Your task to perform on an android device: Do I have any events this weekend? Image 0: 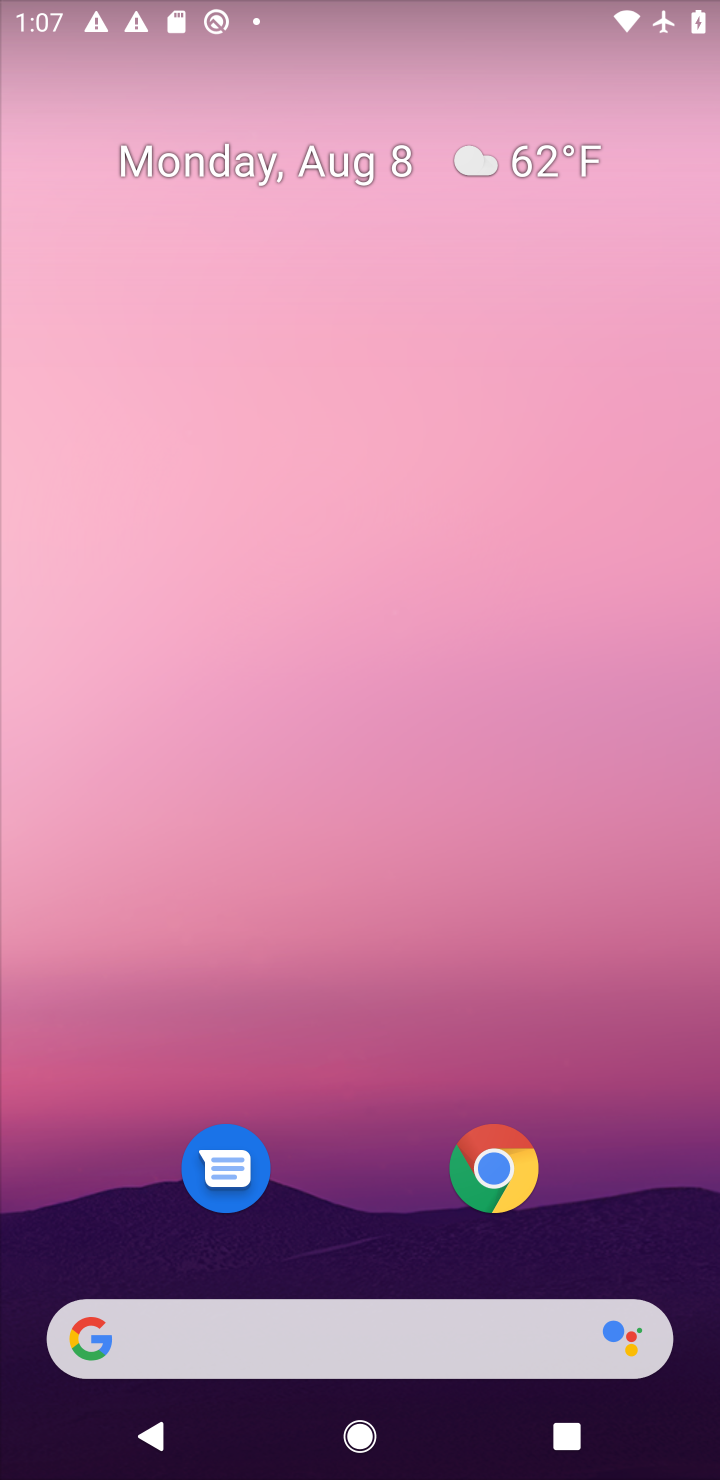
Step 0: drag from (369, 1260) to (289, 0)
Your task to perform on an android device: Do I have any events this weekend? Image 1: 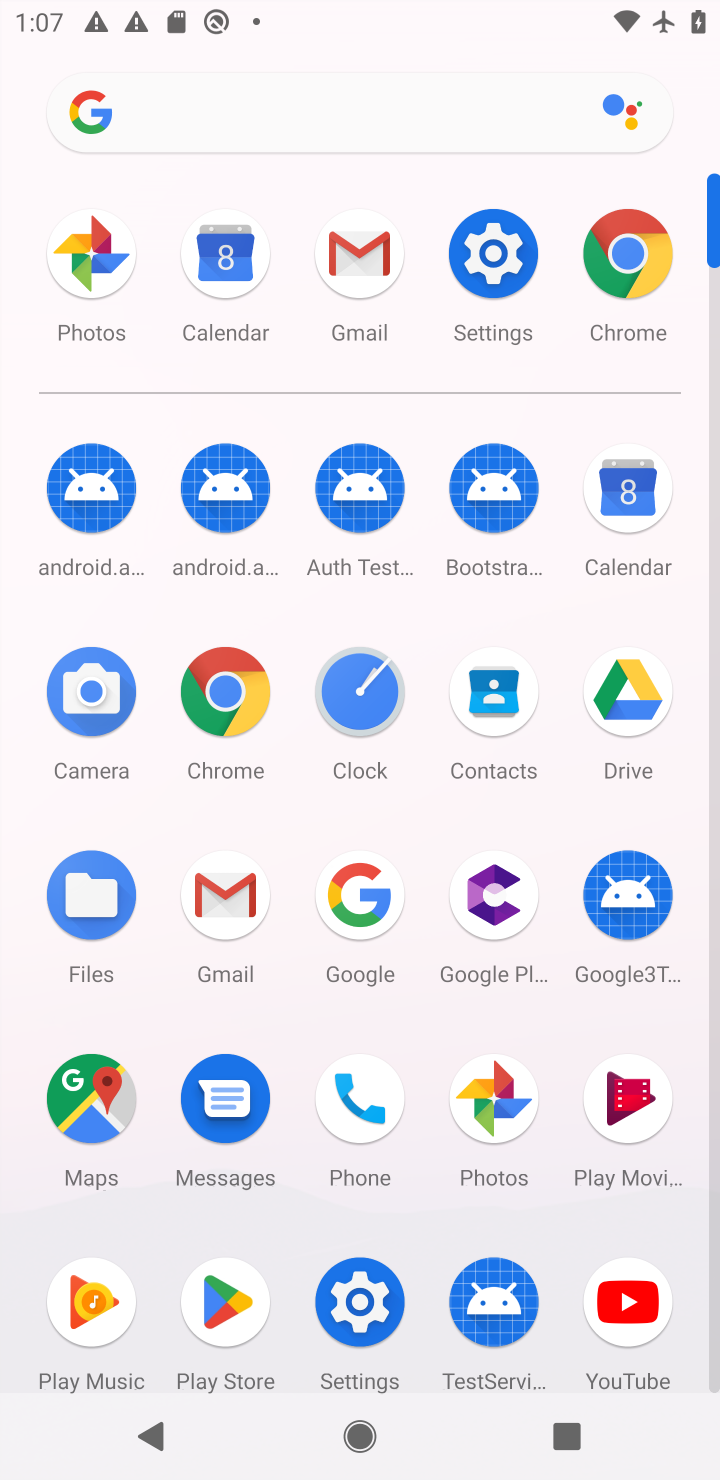
Step 1: click (644, 496)
Your task to perform on an android device: Do I have any events this weekend? Image 2: 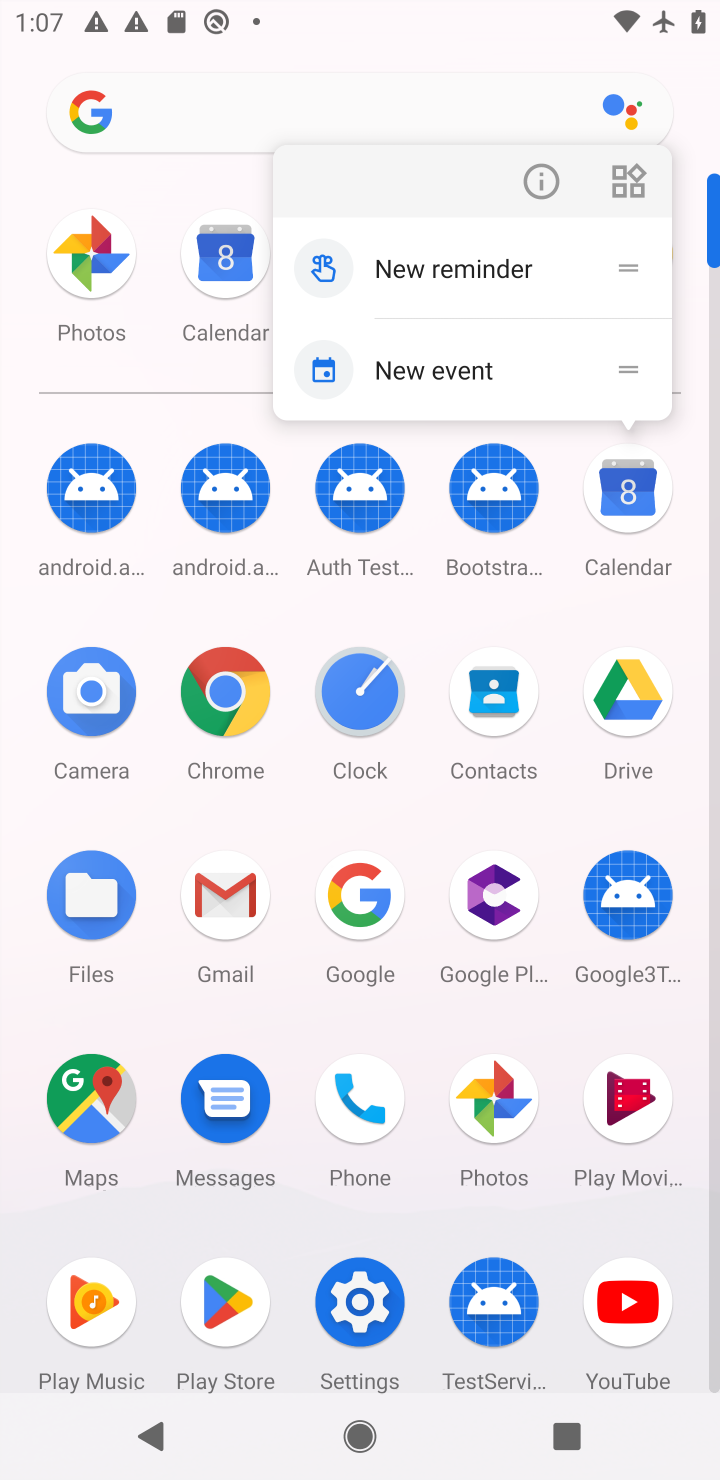
Step 2: click (668, 538)
Your task to perform on an android device: Do I have any events this weekend? Image 3: 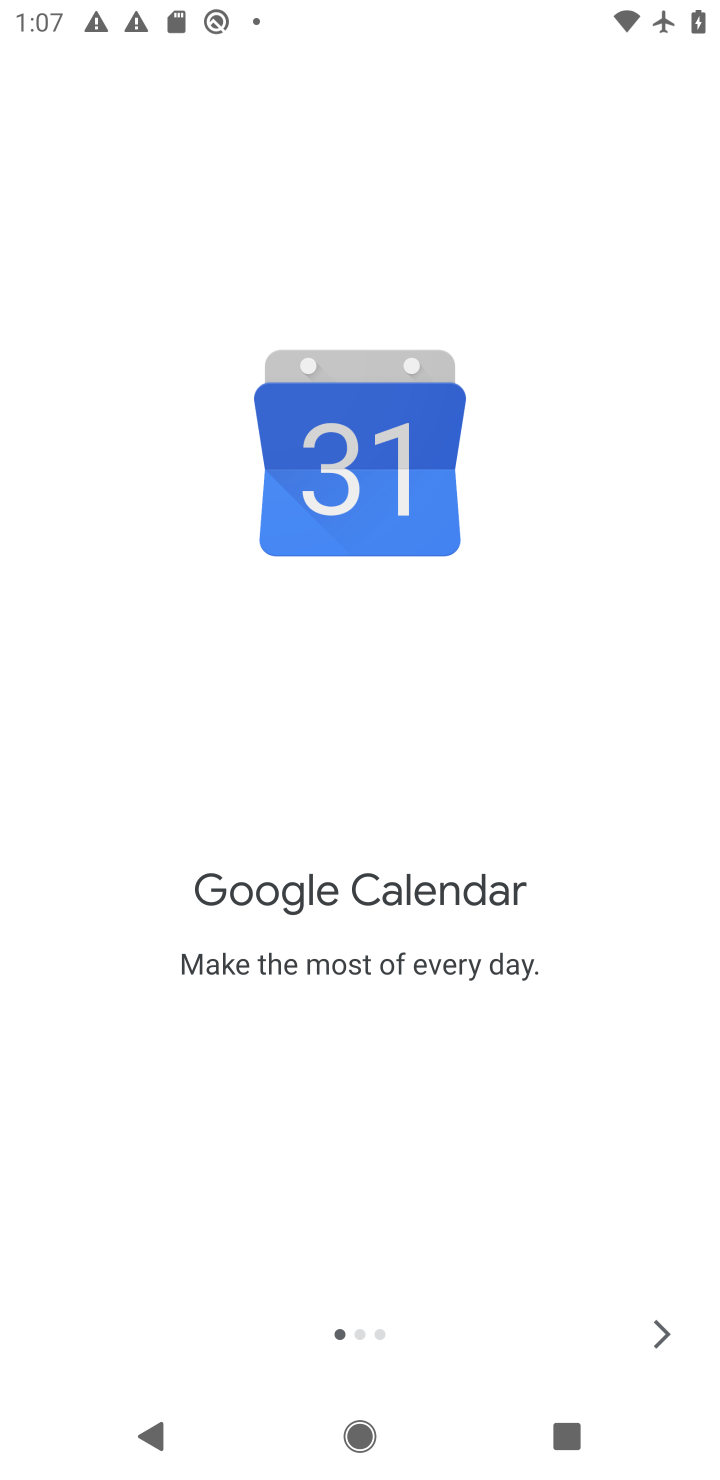
Step 3: task complete